Your task to perform on an android device: check out phone information Image 0: 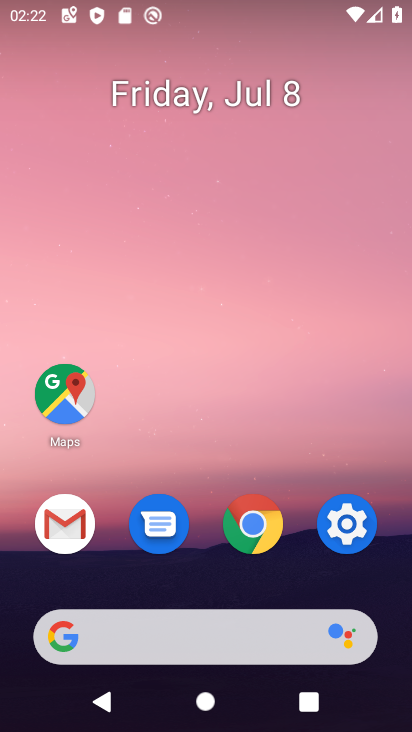
Step 0: click (341, 533)
Your task to perform on an android device: check out phone information Image 1: 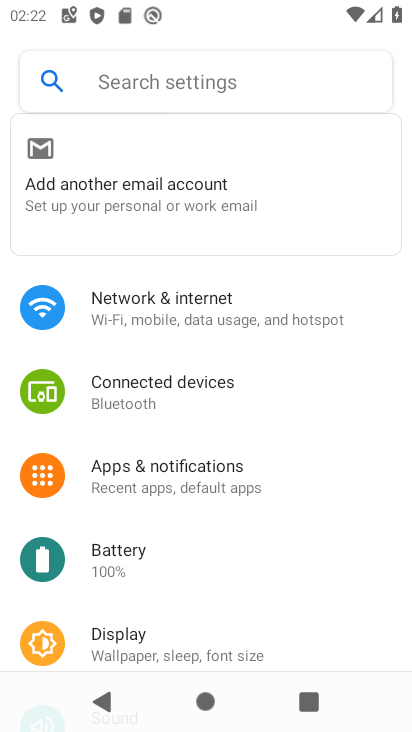
Step 1: click (121, 91)
Your task to perform on an android device: check out phone information Image 2: 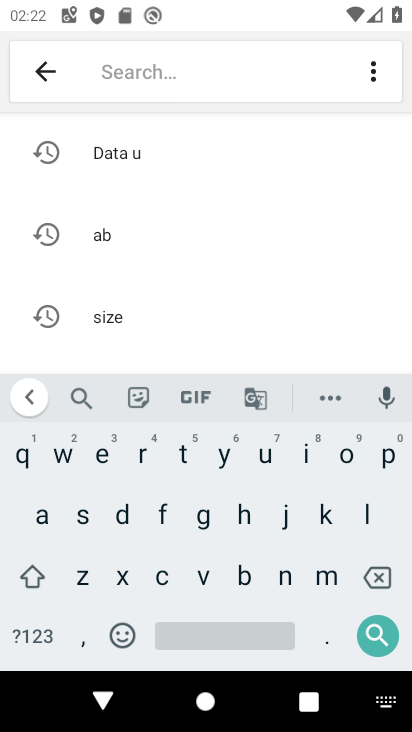
Step 2: click (129, 238)
Your task to perform on an android device: check out phone information Image 3: 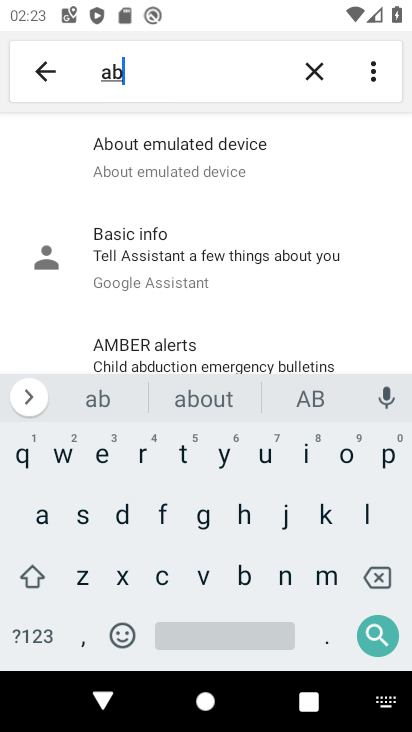
Step 3: click (171, 170)
Your task to perform on an android device: check out phone information Image 4: 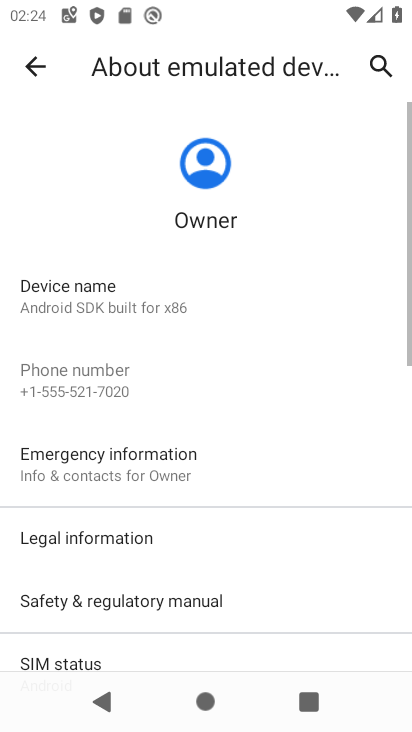
Step 4: task complete